Your task to perform on an android device: change the clock display to analog Image 0: 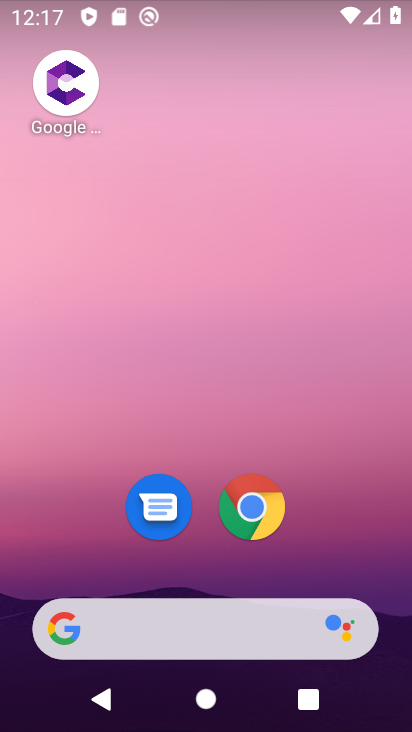
Step 0: drag from (337, 551) to (279, 11)
Your task to perform on an android device: change the clock display to analog Image 1: 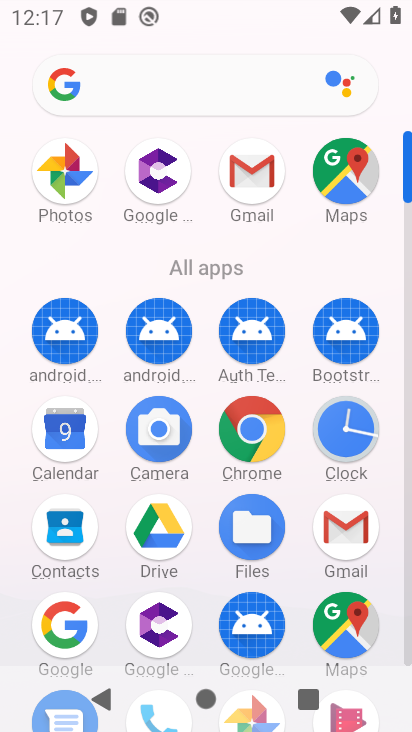
Step 1: click (364, 431)
Your task to perform on an android device: change the clock display to analog Image 2: 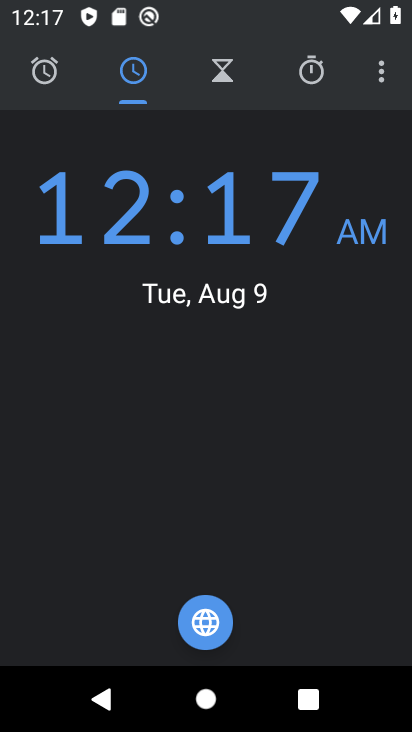
Step 2: click (391, 61)
Your task to perform on an android device: change the clock display to analog Image 3: 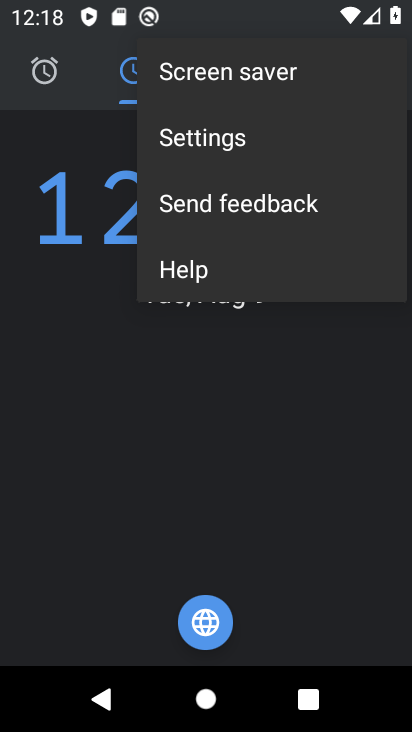
Step 3: click (243, 154)
Your task to perform on an android device: change the clock display to analog Image 4: 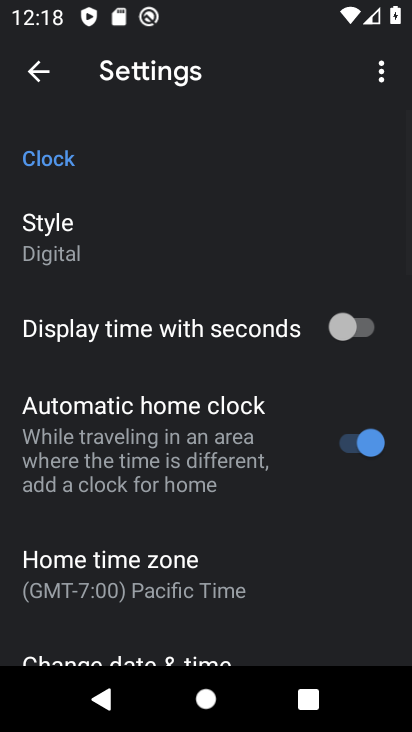
Step 4: click (217, 235)
Your task to perform on an android device: change the clock display to analog Image 5: 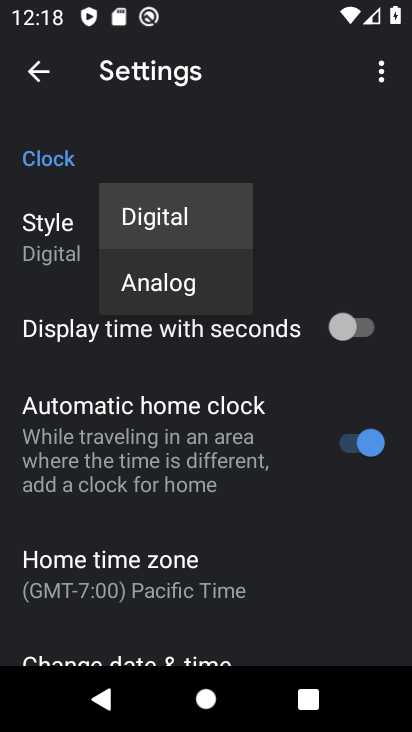
Step 5: click (209, 279)
Your task to perform on an android device: change the clock display to analog Image 6: 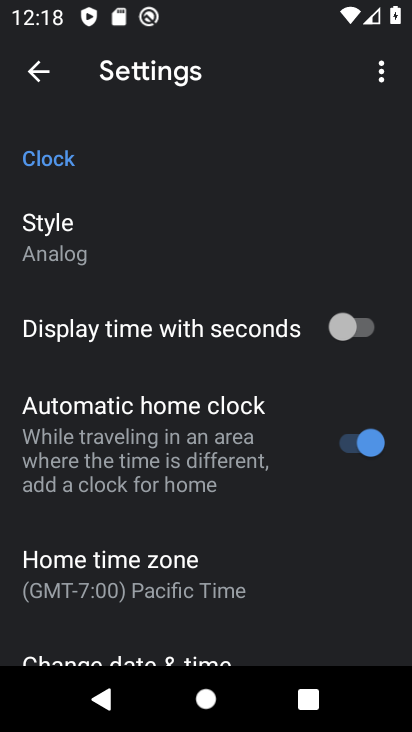
Step 6: task complete